Your task to perform on an android device: star an email in the gmail app Image 0: 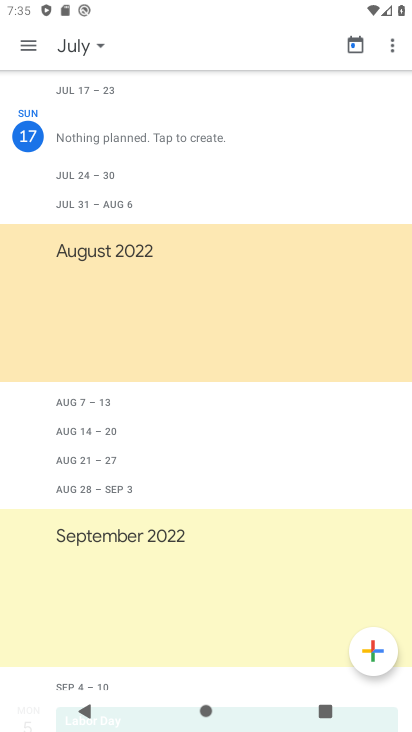
Step 0: press home button
Your task to perform on an android device: star an email in the gmail app Image 1: 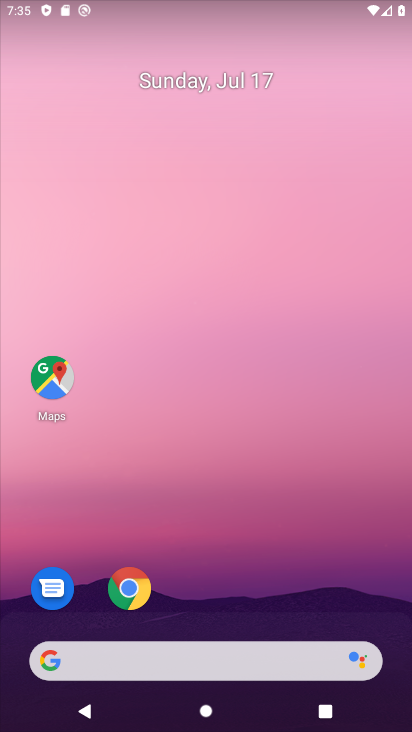
Step 1: drag from (238, 630) to (216, 41)
Your task to perform on an android device: star an email in the gmail app Image 2: 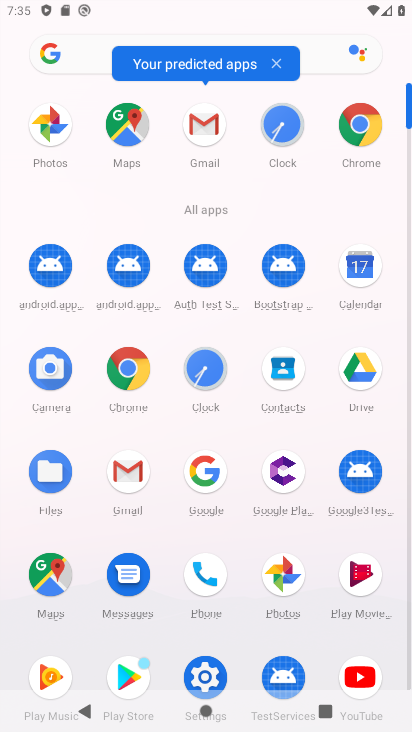
Step 2: click (193, 129)
Your task to perform on an android device: star an email in the gmail app Image 3: 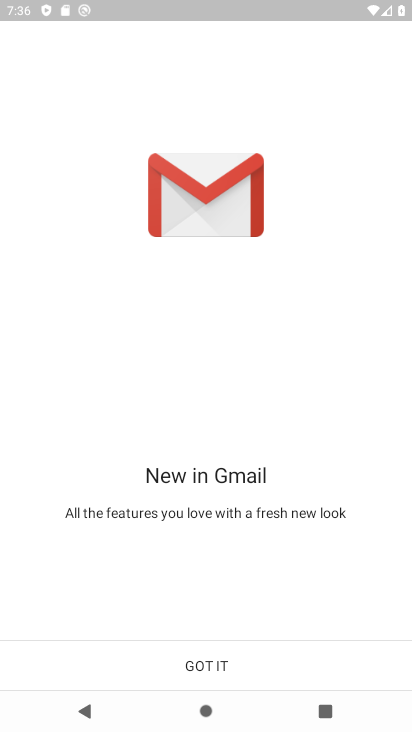
Step 3: click (193, 663)
Your task to perform on an android device: star an email in the gmail app Image 4: 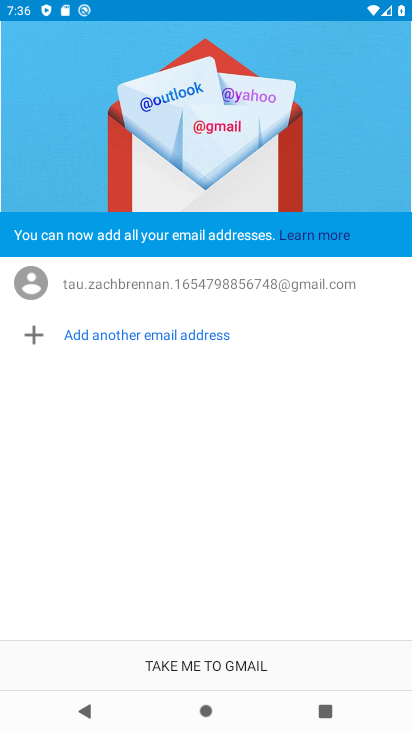
Step 4: click (204, 649)
Your task to perform on an android device: star an email in the gmail app Image 5: 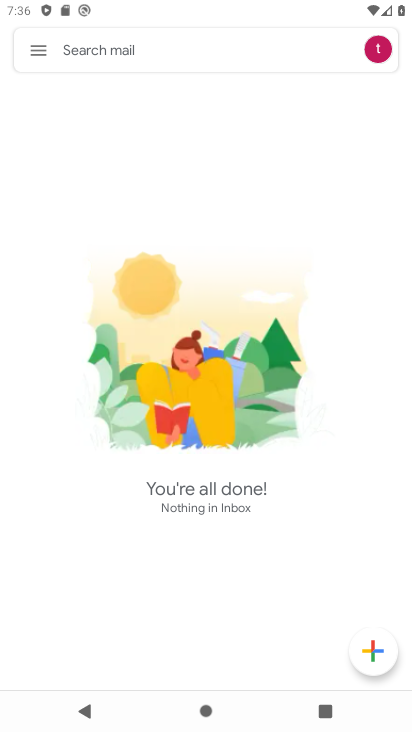
Step 5: click (39, 63)
Your task to perform on an android device: star an email in the gmail app Image 6: 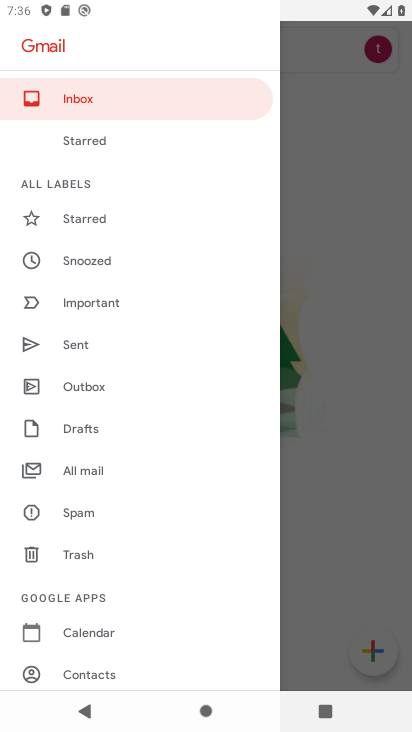
Step 6: click (95, 226)
Your task to perform on an android device: star an email in the gmail app Image 7: 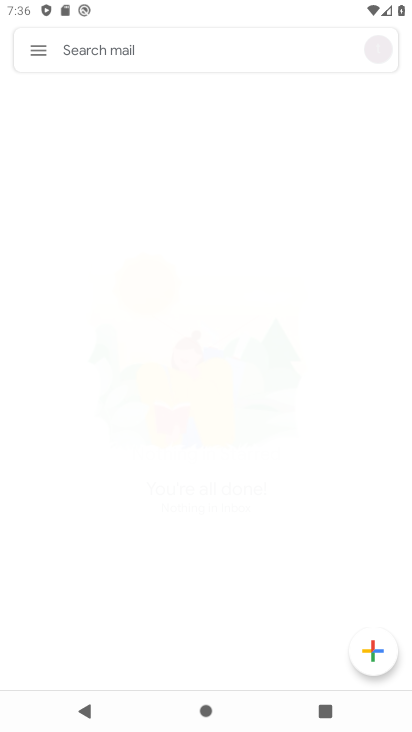
Step 7: task complete